Your task to perform on an android device: Search for "razer blade" on bestbuy, select the first entry, and add it to the cart. Image 0: 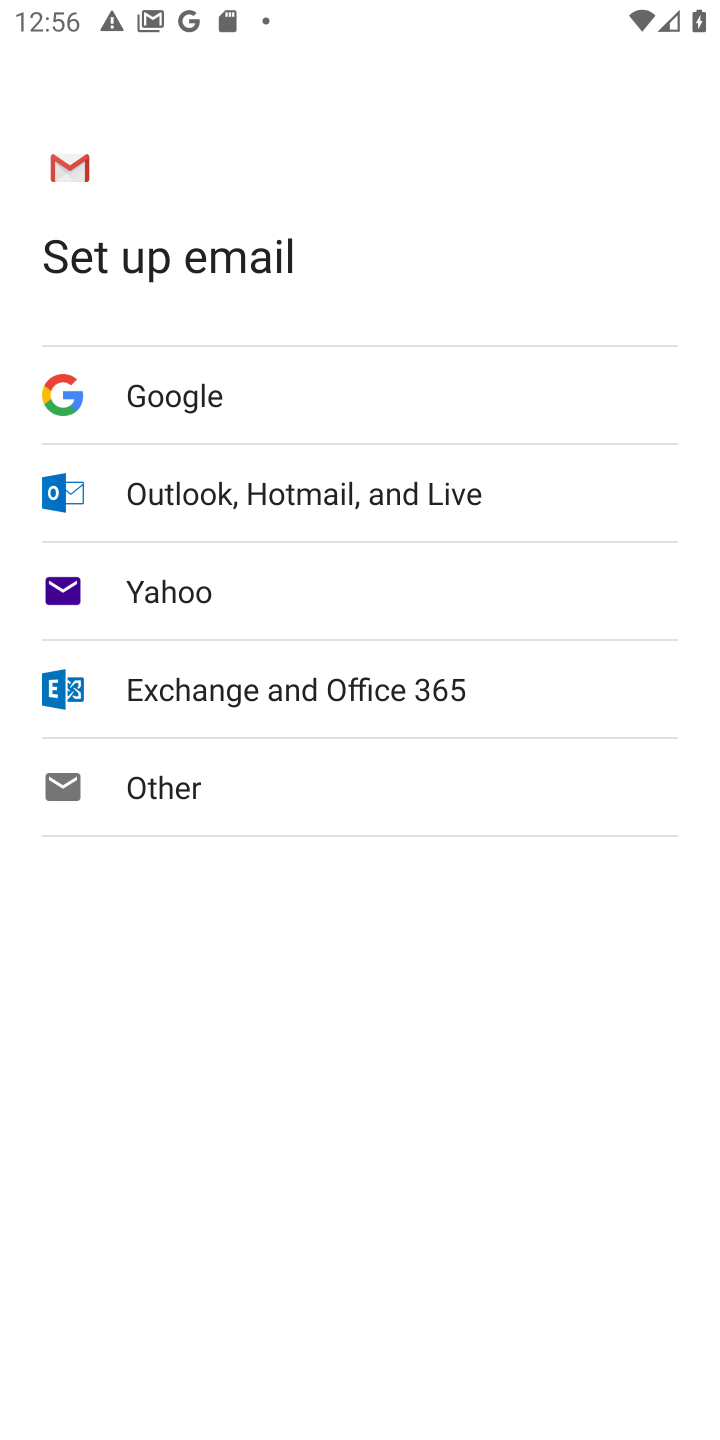
Step 0: task complete